Your task to perform on an android device: Search for seafood restaurants on Google Maps Image 0: 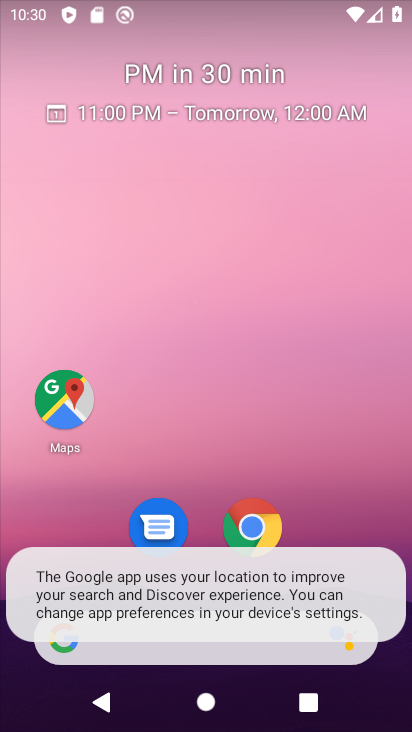
Step 0: drag from (356, 513) to (281, 60)
Your task to perform on an android device: Search for seafood restaurants on Google Maps Image 1: 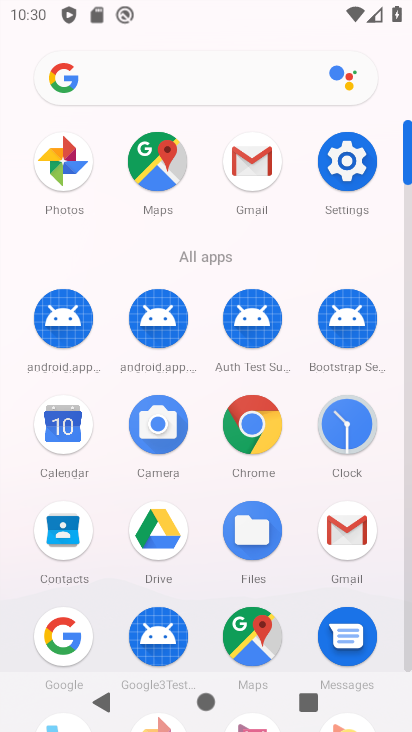
Step 1: click (253, 640)
Your task to perform on an android device: Search for seafood restaurants on Google Maps Image 2: 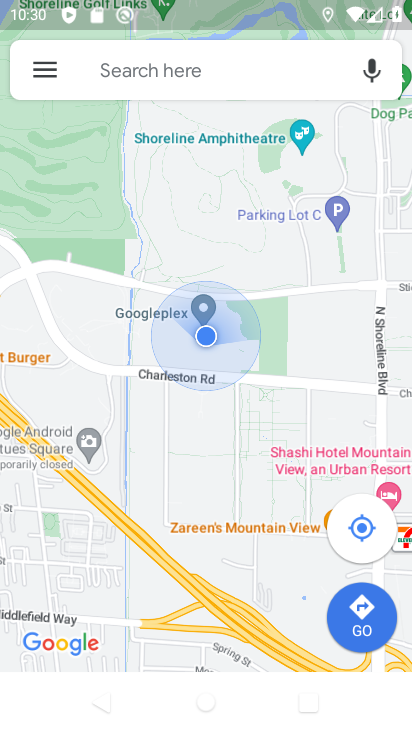
Step 2: click (199, 62)
Your task to perform on an android device: Search for seafood restaurants on Google Maps Image 3: 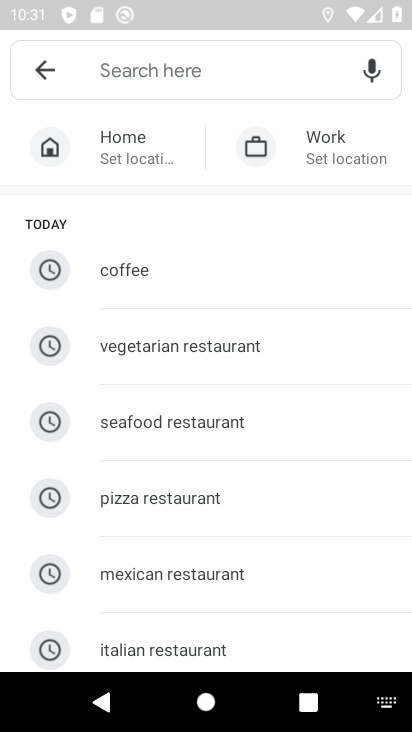
Step 3: type "seafood restaurants"
Your task to perform on an android device: Search for seafood restaurants on Google Maps Image 4: 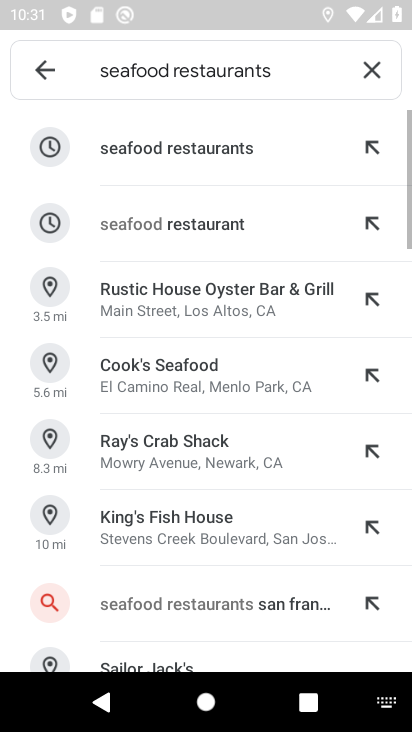
Step 4: click (200, 154)
Your task to perform on an android device: Search for seafood restaurants on Google Maps Image 5: 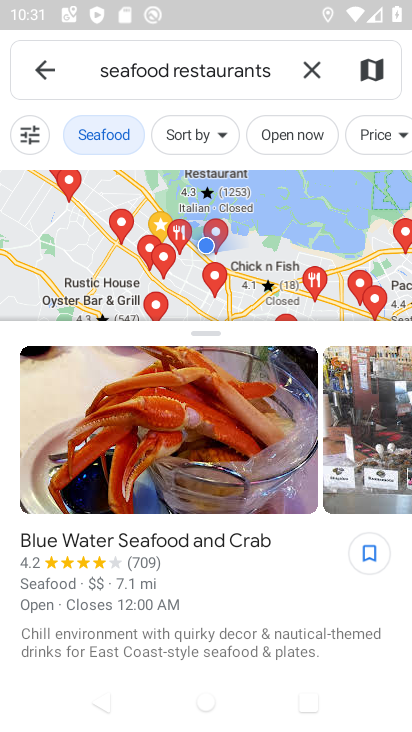
Step 5: task complete